Your task to perform on an android device: Open the Play Movies app and select the watchlist tab. Image 0: 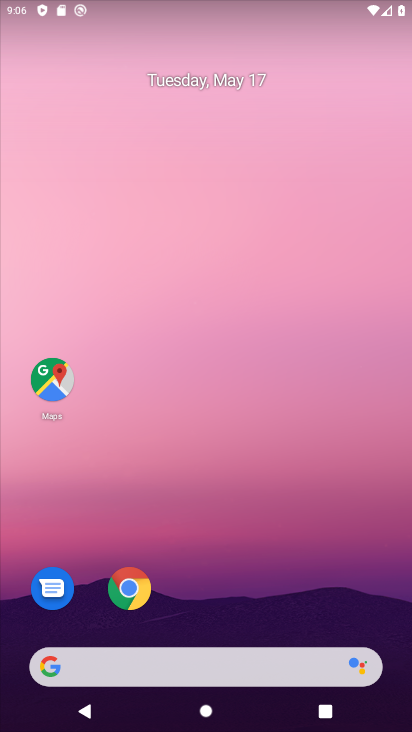
Step 0: drag from (287, 491) to (256, 208)
Your task to perform on an android device: Open the Play Movies app and select the watchlist tab. Image 1: 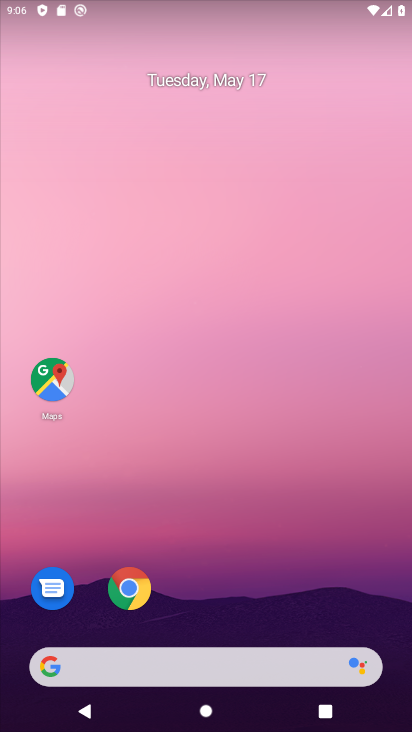
Step 1: drag from (199, 615) to (217, 190)
Your task to perform on an android device: Open the Play Movies app and select the watchlist tab. Image 2: 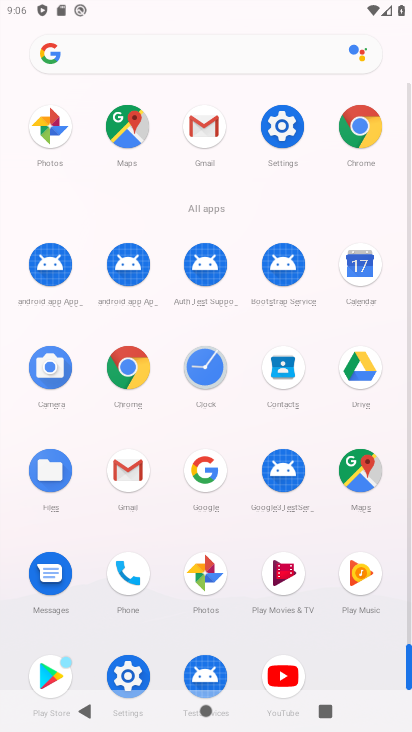
Step 2: click (274, 671)
Your task to perform on an android device: Open the Play Movies app and select the watchlist tab. Image 3: 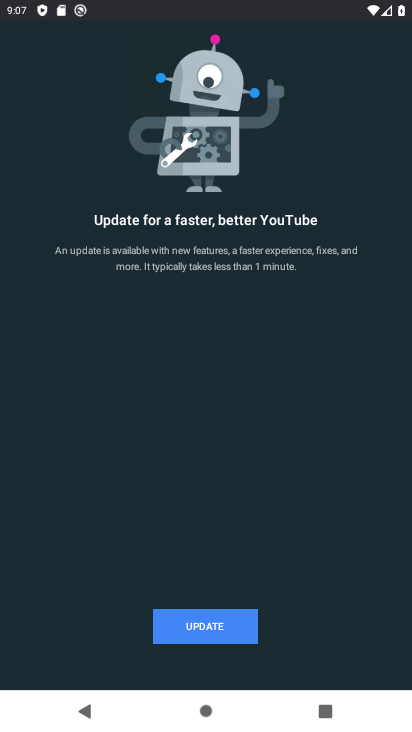
Step 3: press back button
Your task to perform on an android device: Open the Play Movies app and select the watchlist tab. Image 4: 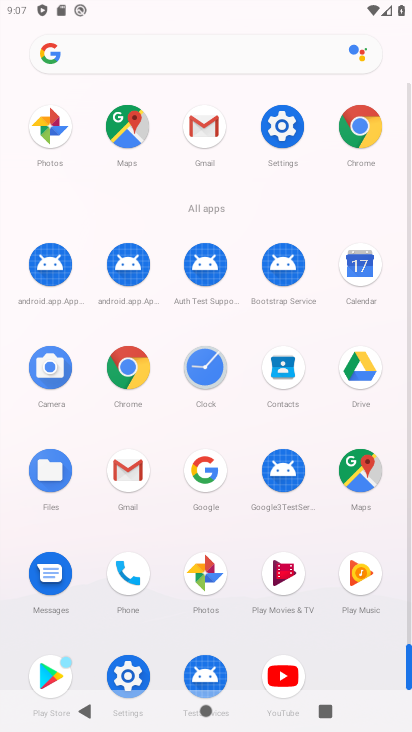
Step 4: click (282, 563)
Your task to perform on an android device: Open the Play Movies app and select the watchlist tab. Image 5: 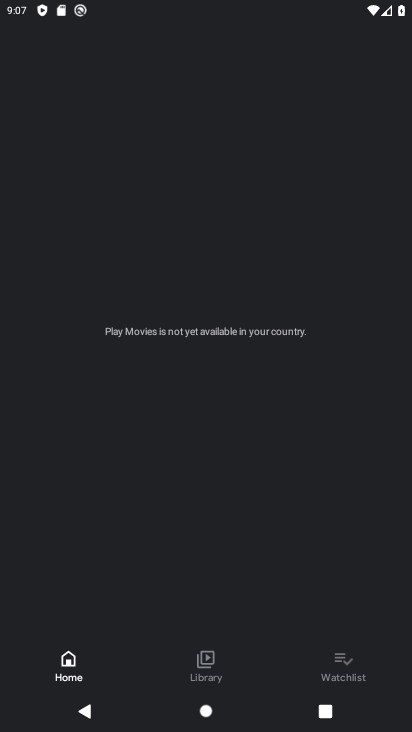
Step 5: click (341, 667)
Your task to perform on an android device: Open the Play Movies app and select the watchlist tab. Image 6: 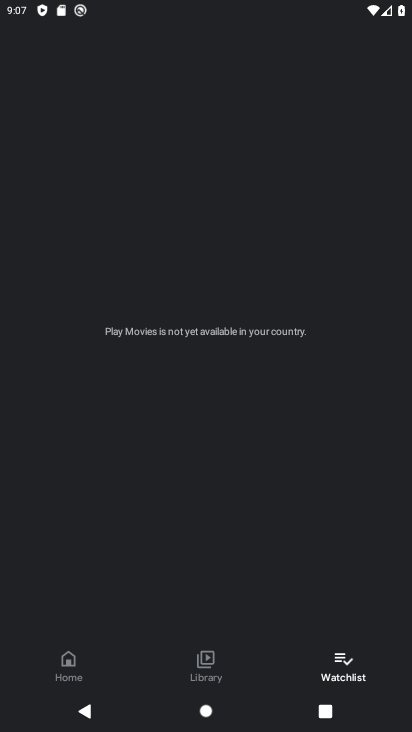
Step 6: task complete